Your task to perform on an android device: Open the map Image 0: 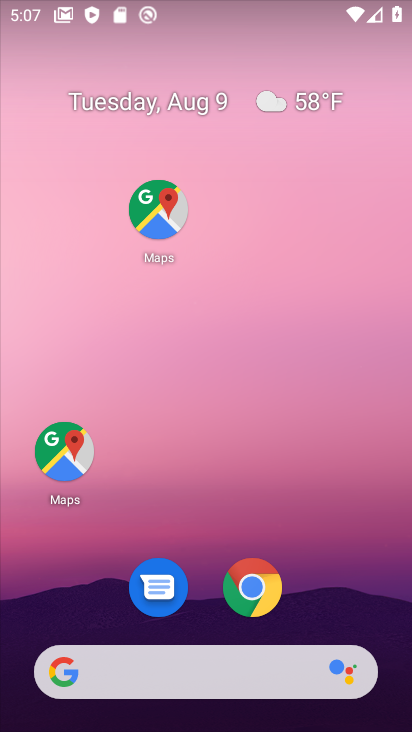
Step 0: drag from (220, 536) to (187, 295)
Your task to perform on an android device: Open the map Image 1: 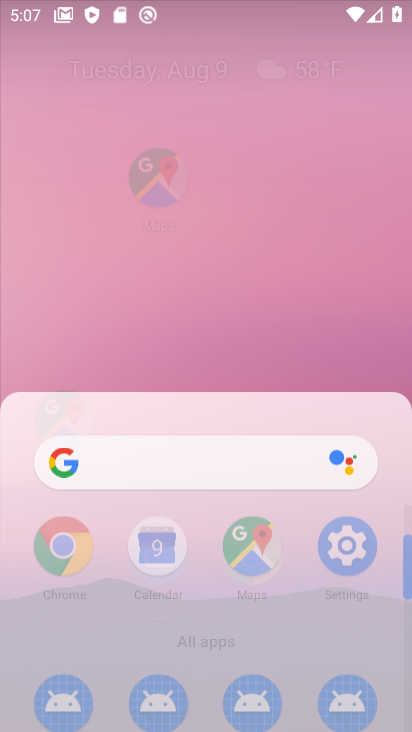
Step 1: click (162, 96)
Your task to perform on an android device: Open the map Image 2: 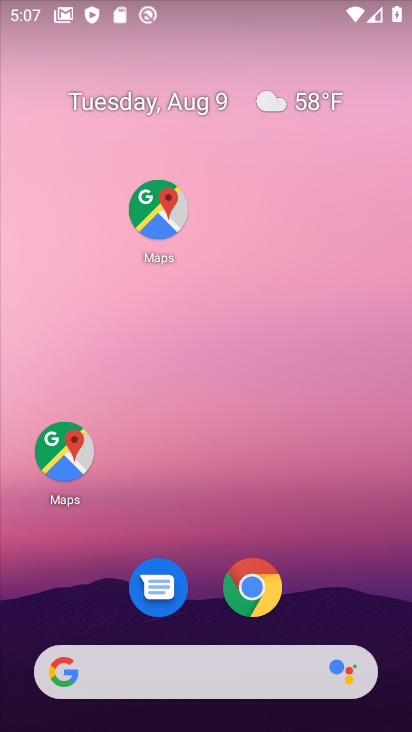
Step 2: click (156, 221)
Your task to perform on an android device: Open the map Image 3: 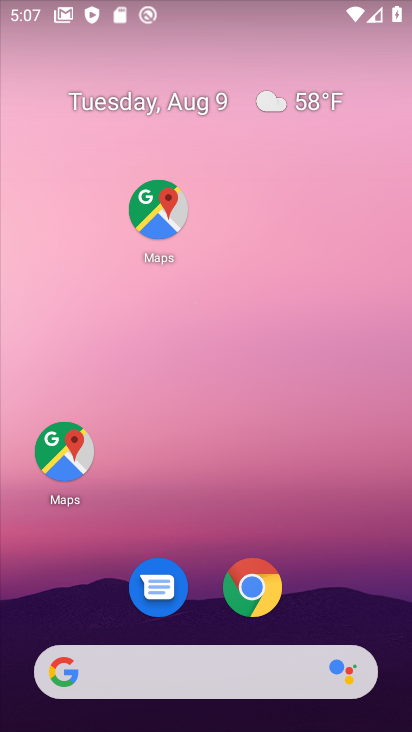
Step 3: click (159, 217)
Your task to perform on an android device: Open the map Image 4: 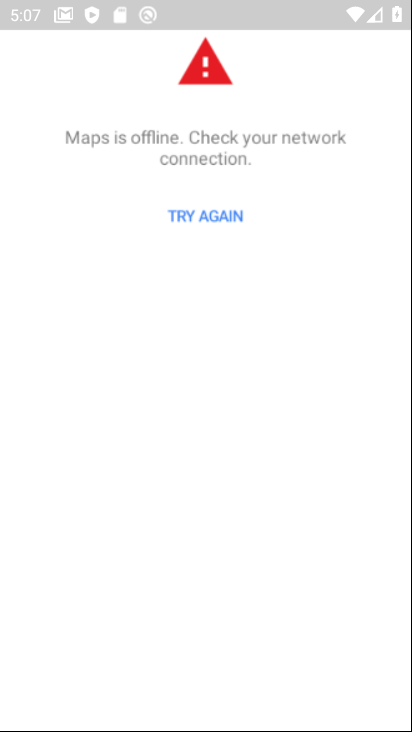
Step 4: click (160, 216)
Your task to perform on an android device: Open the map Image 5: 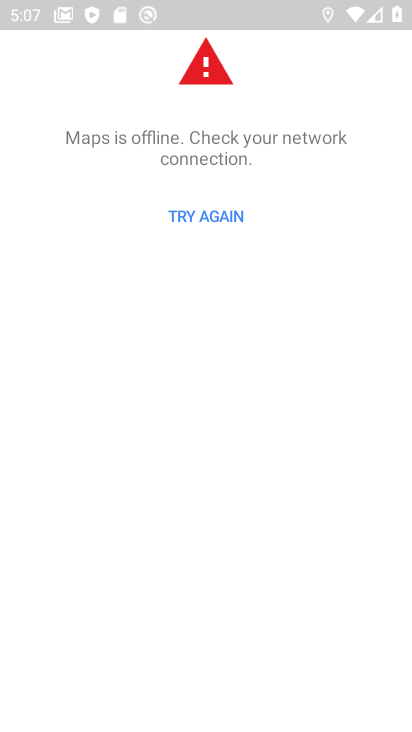
Step 5: click (214, 214)
Your task to perform on an android device: Open the map Image 6: 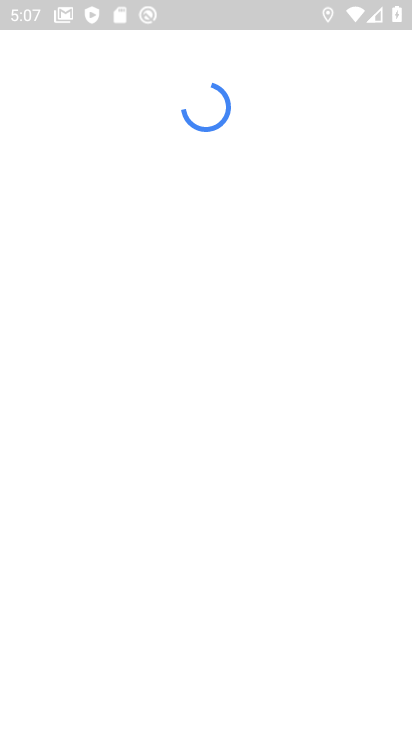
Step 6: task complete